Your task to perform on an android device: Open notification settings Image 0: 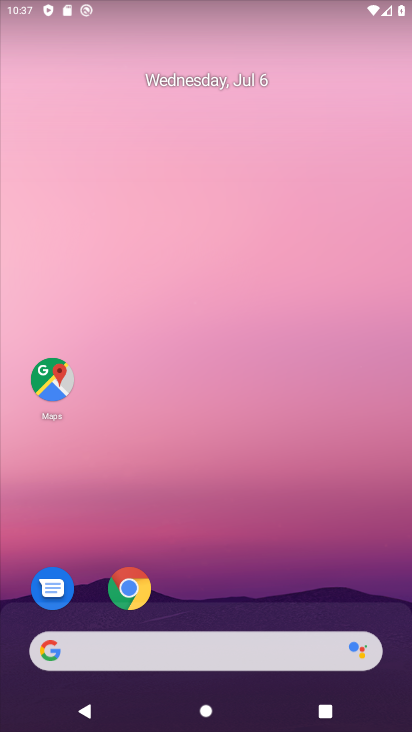
Step 0: drag from (249, 713) to (251, 57)
Your task to perform on an android device: Open notification settings Image 1: 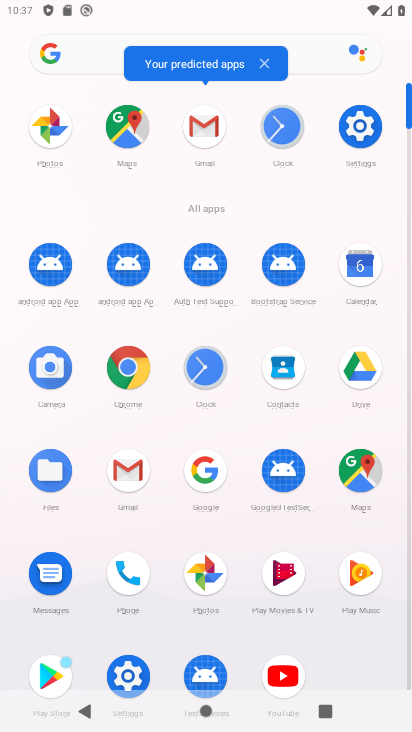
Step 1: click (359, 122)
Your task to perform on an android device: Open notification settings Image 2: 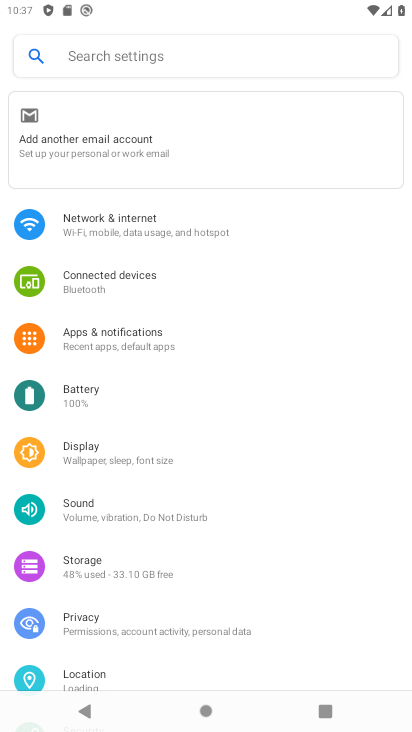
Step 2: click (90, 340)
Your task to perform on an android device: Open notification settings Image 3: 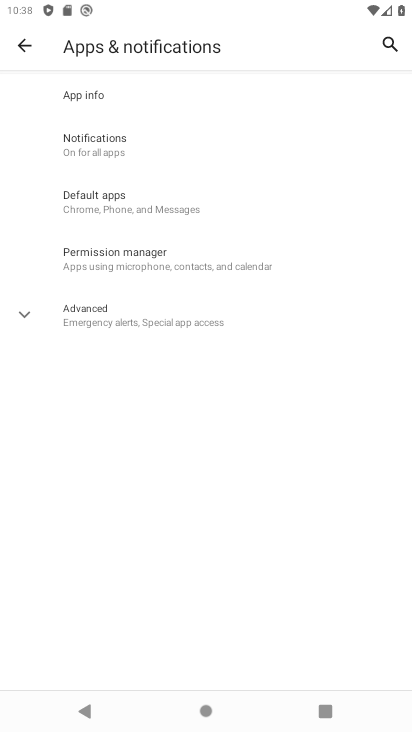
Step 3: click (85, 144)
Your task to perform on an android device: Open notification settings Image 4: 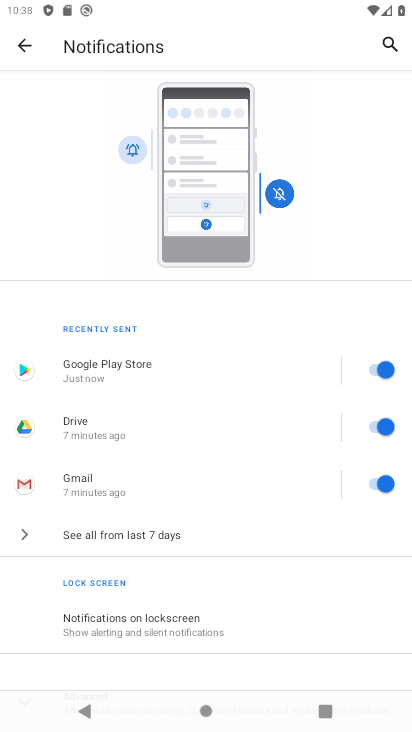
Step 4: task complete